Your task to perform on an android device: create a new album in the google photos Image 0: 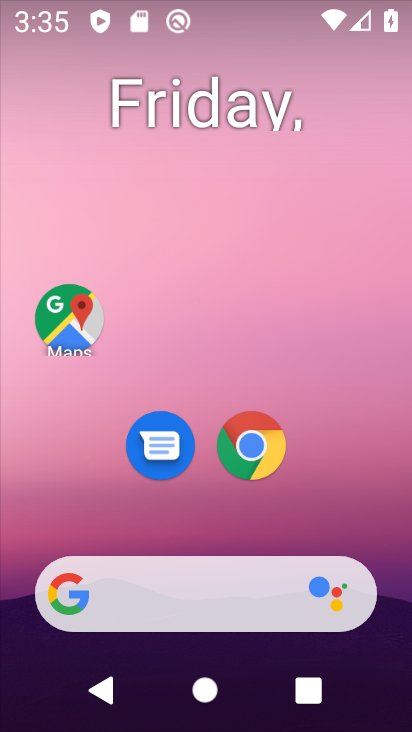
Step 0: drag from (399, 663) to (324, 55)
Your task to perform on an android device: create a new album in the google photos Image 1: 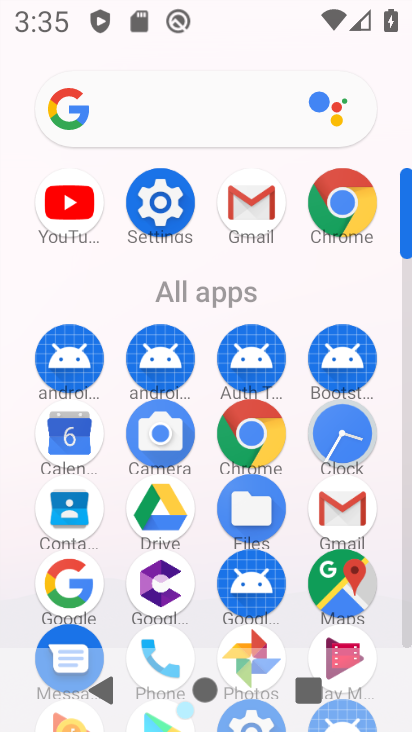
Step 1: drag from (8, 623) to (8, 246)
Your task to perform on an android device: create a new album in the google photos Image 2: 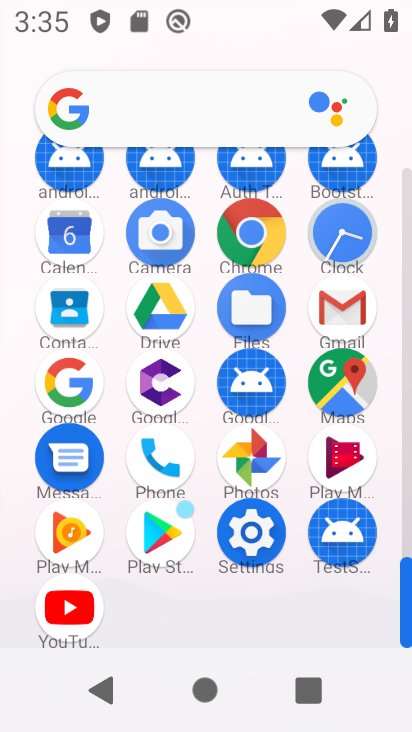
Step 2: click (257, 456)
Your task to perform on an android device: create a new album in the google photos Image 3: 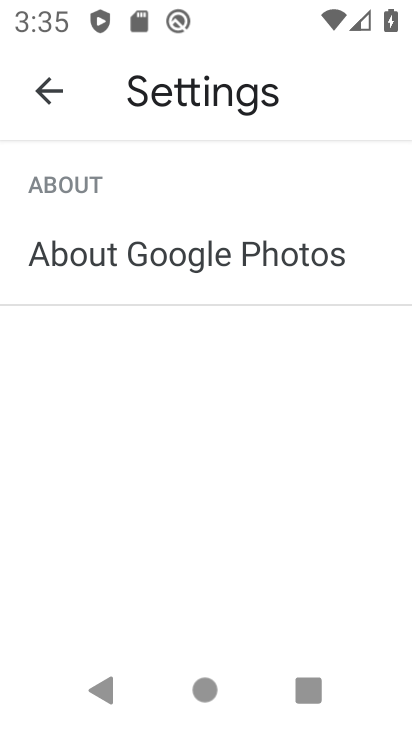
Step 3: click (43, 94)
Your task to perform on an android device: create a new album in the google photos Image 4: 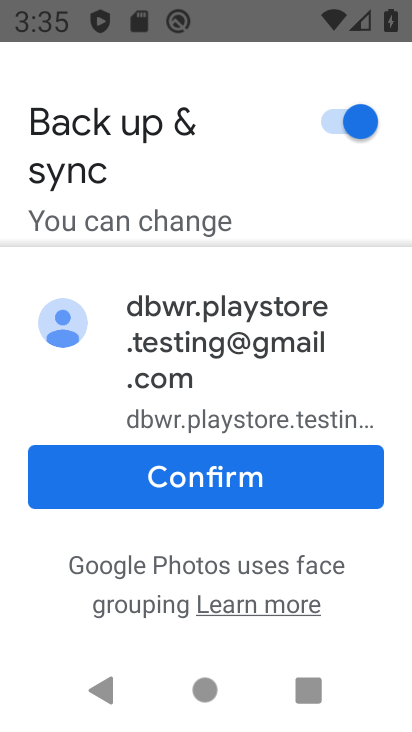
Step 4: click (248, 465)
Your task to perform on an android device: create a new album in the google photos Image 5: 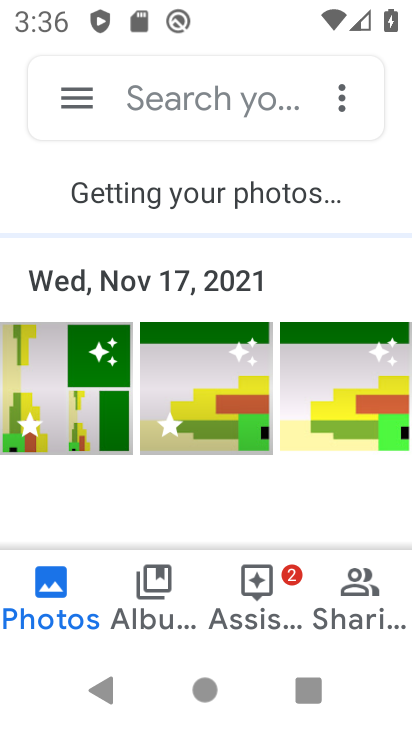
Step 5: click (332, 414)
Your task to perform on an android device: create a new album in the google photos Image 6: 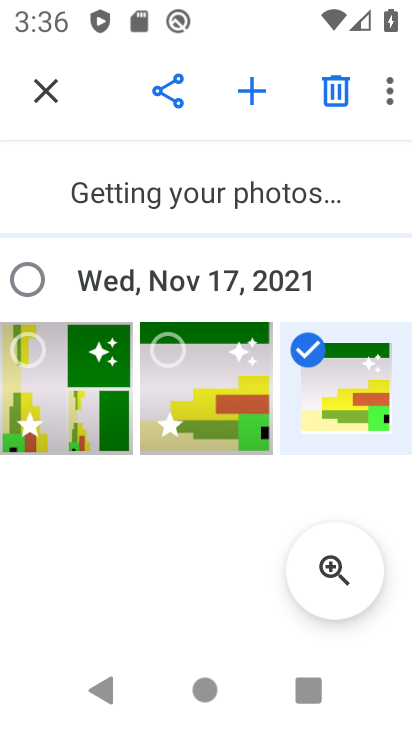
Step 6: click (250, 86)
Your task to perform on an android device: create a new album in the google photos Image 7: 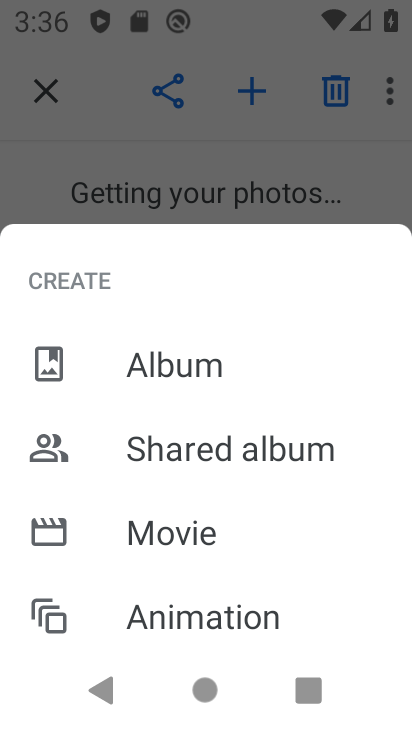
Step 7: click (166, 373)
Your task to perform on an android device: create a new album in the google photos Image 8: 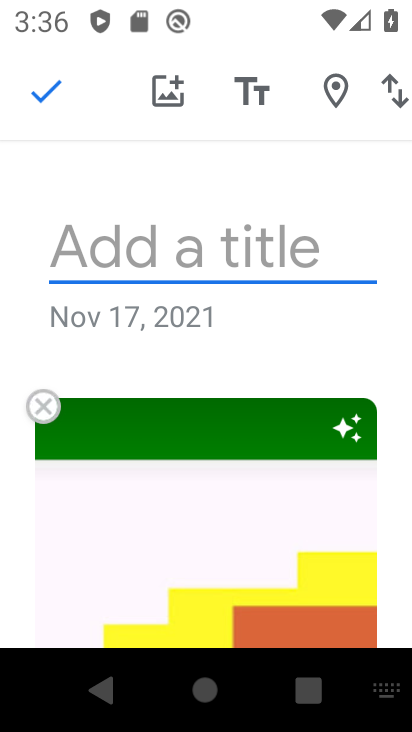
Step 8: type "jhg"
Your task to perform on an android device: create a new album in the google photos Image 9: 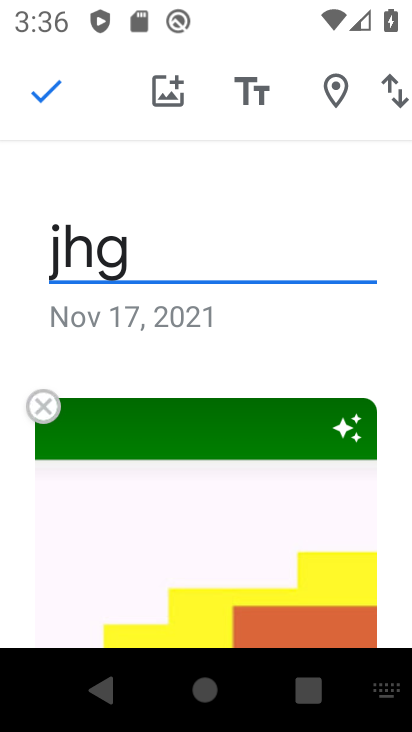
Step 9: click (33, 85)
Your task to perform on an android device: create a new album in the google photos Image 10: 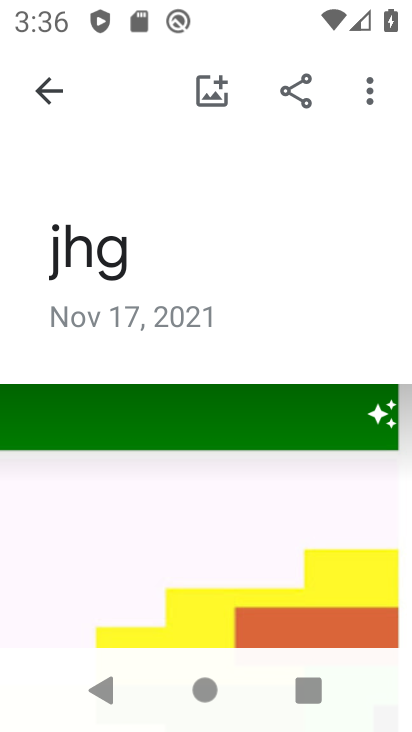
Step 10: task complete